Your task to perform on an android device: Open wifi settings Image 0: 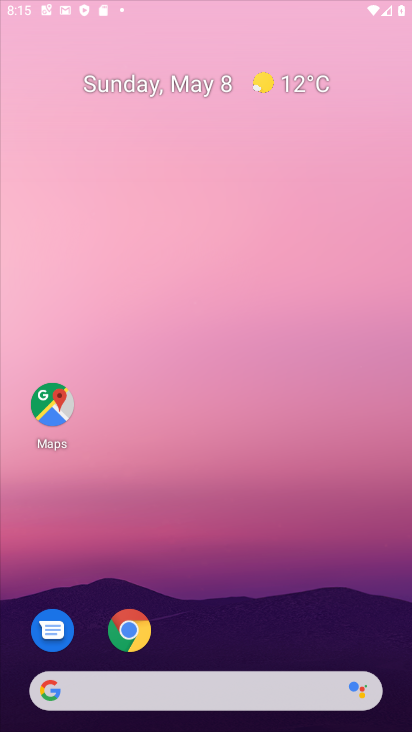
Step 0: click (408, 93)
Your task to perform on an android device: Open wifi settings Image 1: 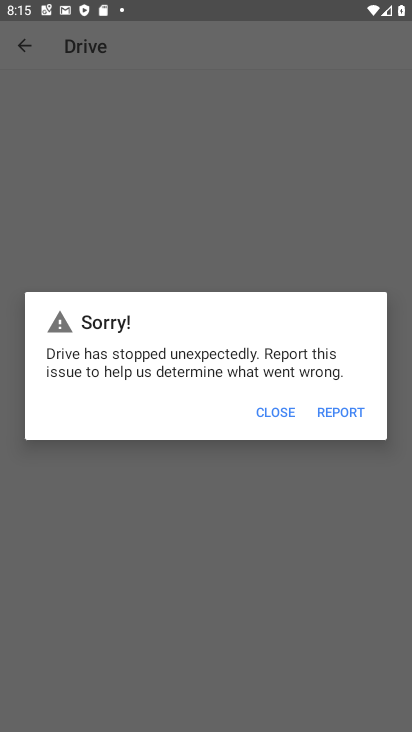
Step 1: press home button
Your task to perform on an android device: Open wifi settings Image 2: 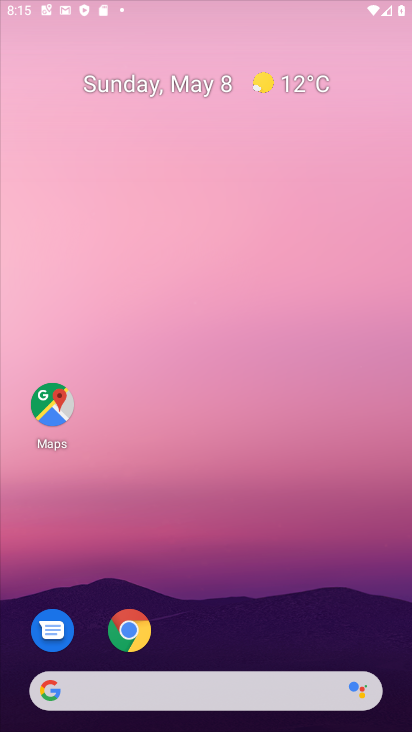
Step 2: drag from (338, 541) to (411, 18)
Your task to perform on an android device: Open wifi settings Image 3: 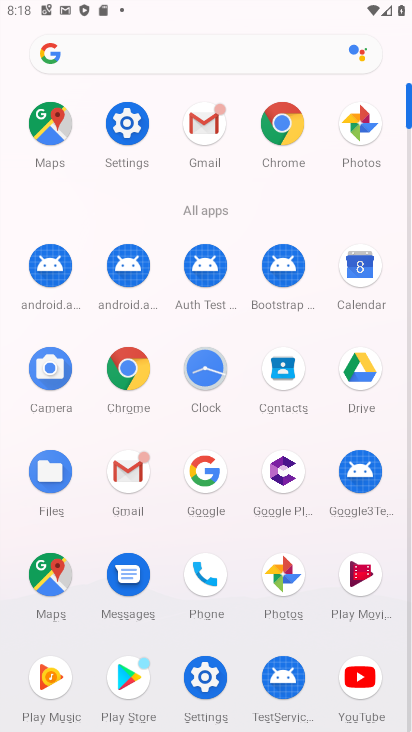
Step 3: click (138, 126)
Your task to perform on an android device: Open wifi settings Image 4: 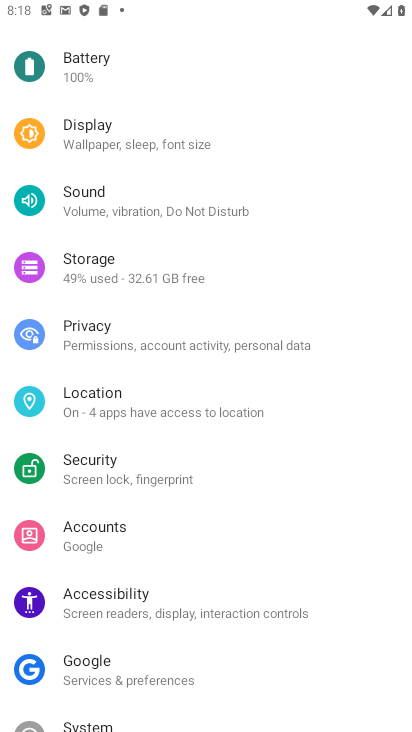
Step 4: drag from (150, 78) to (152, 476)
Your task to perform on an android device: Open wifi settings Image 5: 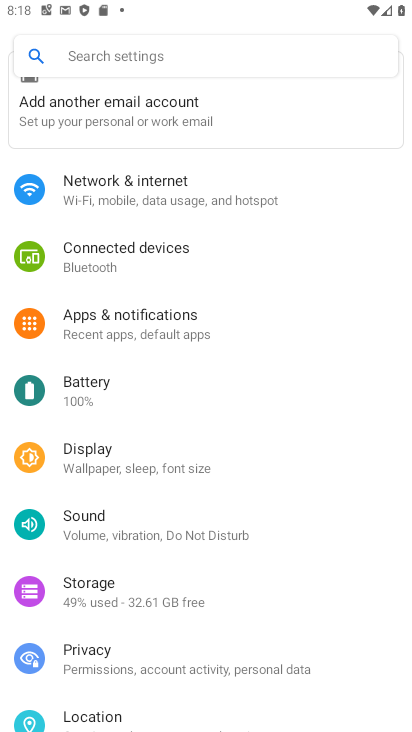
Step 5: click (155, 186)
Your task to perform on an android device: Open wifi settings Image 6: 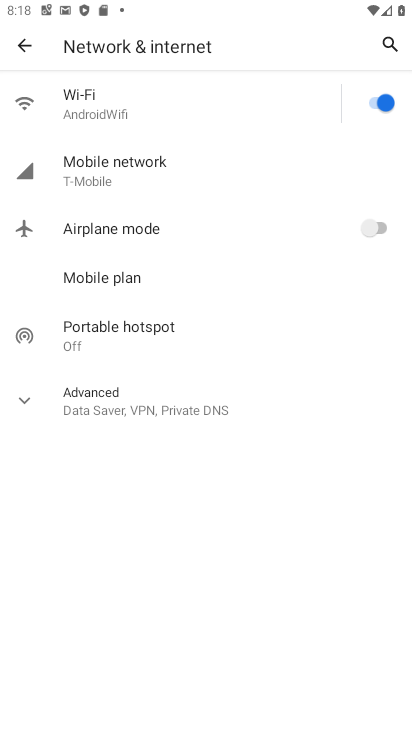
Step 6: click (176, 104)
Your task to perform on an android device: Open wifi settings Image 7: 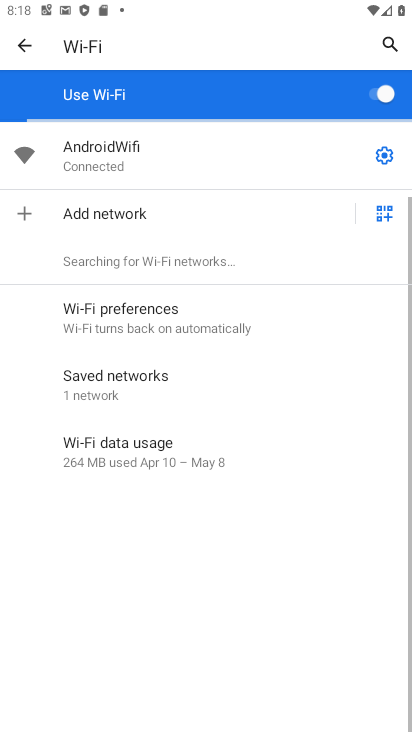
Step 7: task complete